Your task to perform on an android device: Search for a dining table on crateandbarrel.com Image 0: 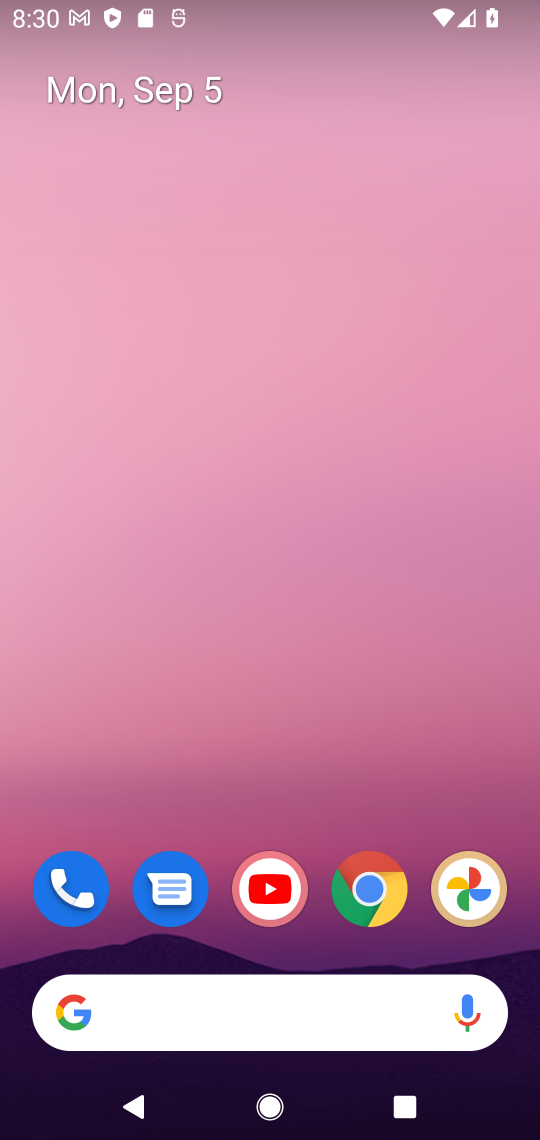
Step 0: click (251, 1017)
Your task to perform on an android device: Search for a dining table on crateandbarrel.com Image 1: 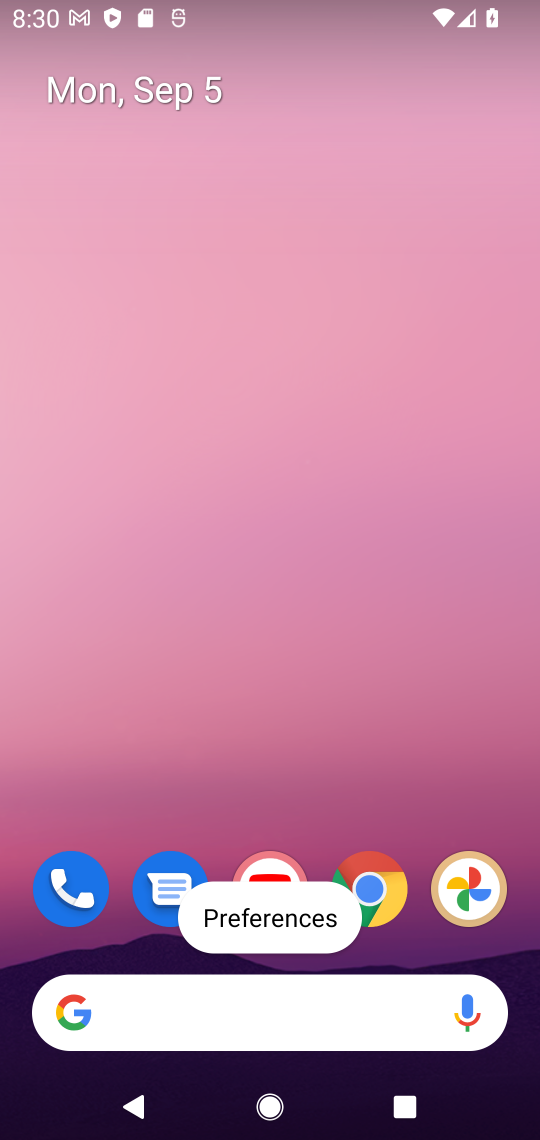
Step 1: click (251, 1017)
Your task to perform on an android device: Search for a dining table on crateandbarrel.com Image 2: 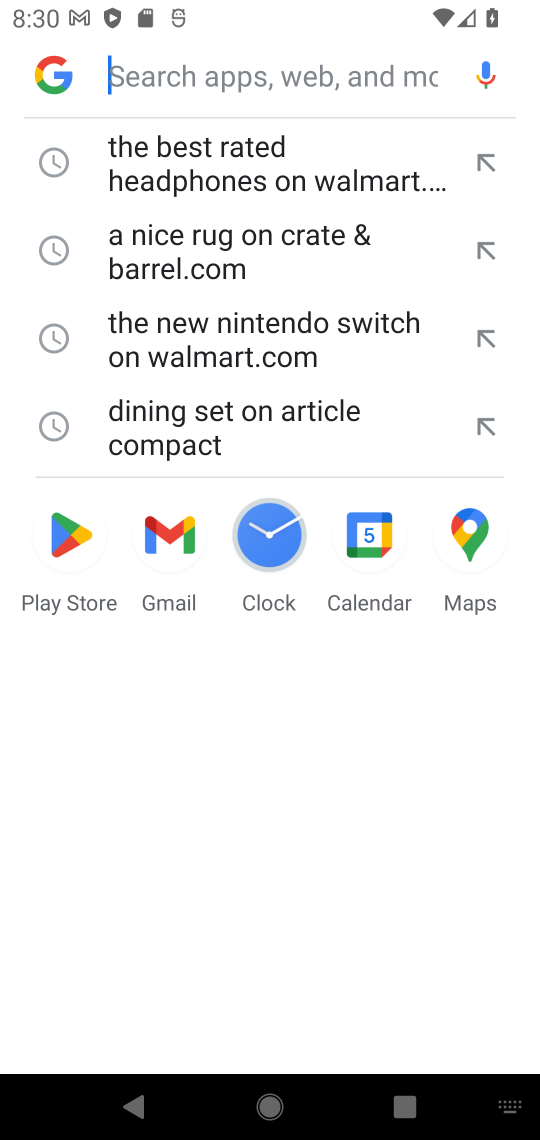
Step 2: type " a dining table on crateandbarrel.com"
Your task to perform on an android device: Search for a dining table on crateandbarrel.com Image 3: 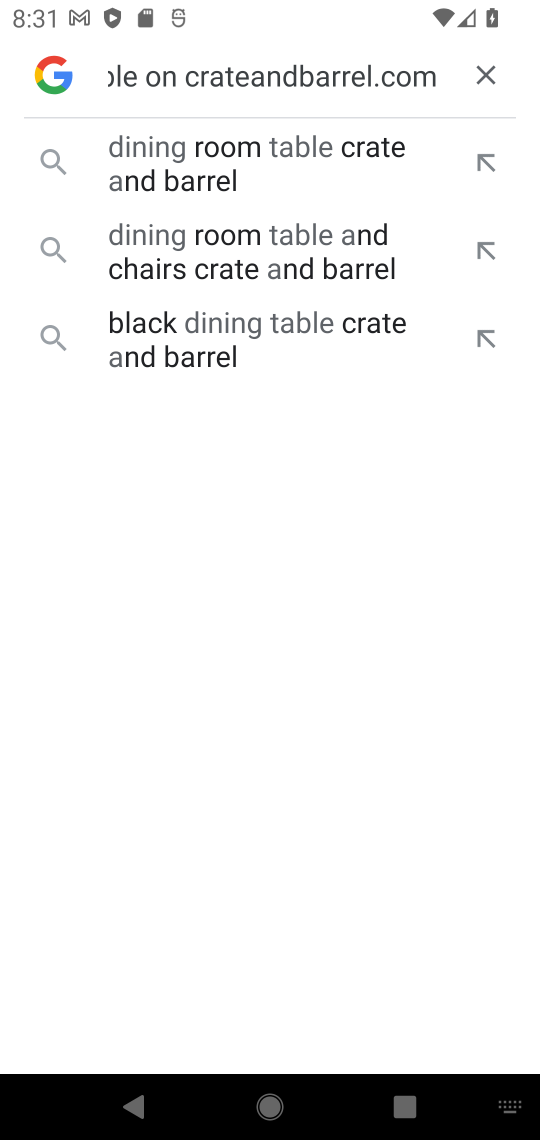
Step 3: click (211, 168)
Your task to perform on an android device: Search for a dining table on crateandbarrel.com Image 4: 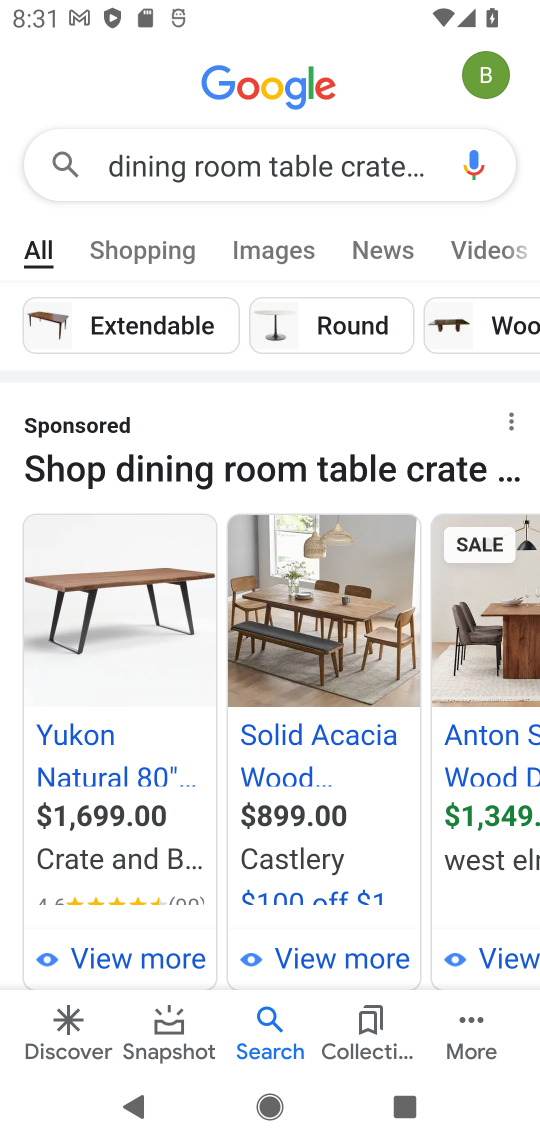
Step 4: task complete